Your task to perform on an android device: Open wifi settings Image 0: 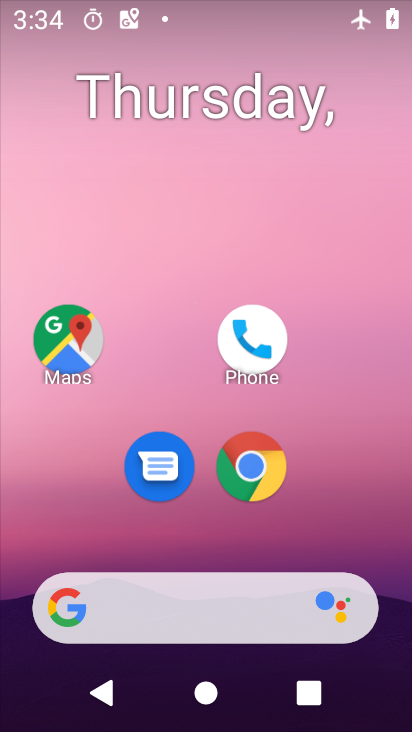
Step 0: drag from (165, 501) to (166, 99)
Your task to perform on an android device: Open wifi settings Image 1: 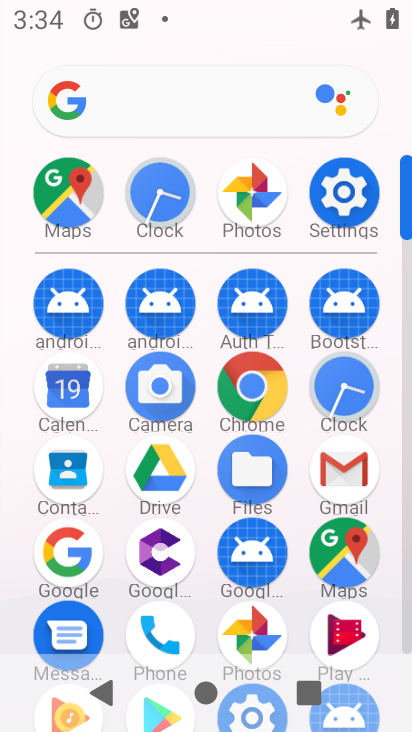
Step 1: click (349, 204)
Your task to perform on an android device: Open wifi settings Image 2: 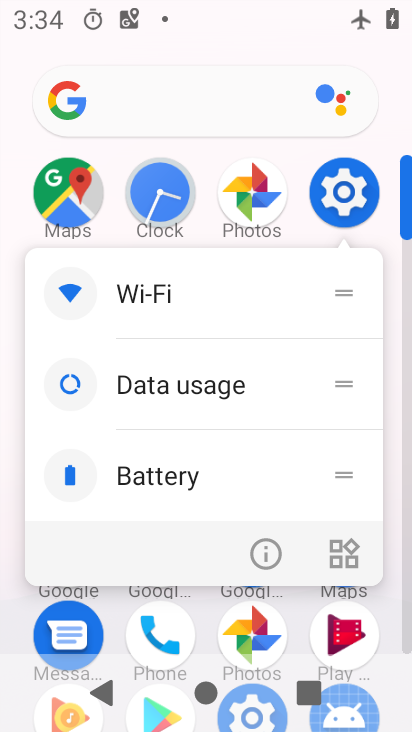
Step 2: click (189, 294)
Your task to perform on an android device: Open wifi settings Image 3: 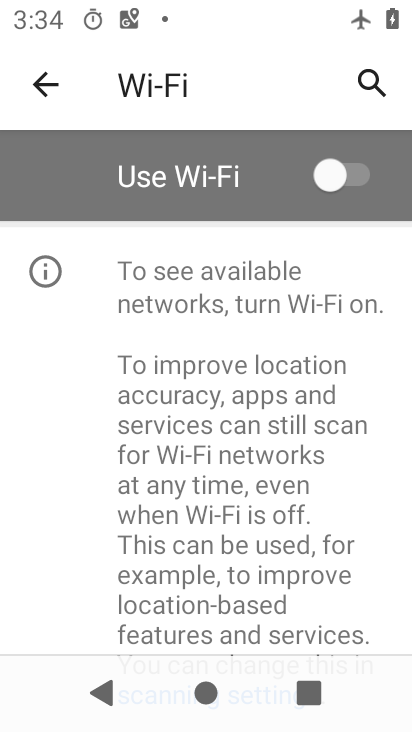
Step 3: task complete